Your task to perform on an android device: check out phone information Image 0: 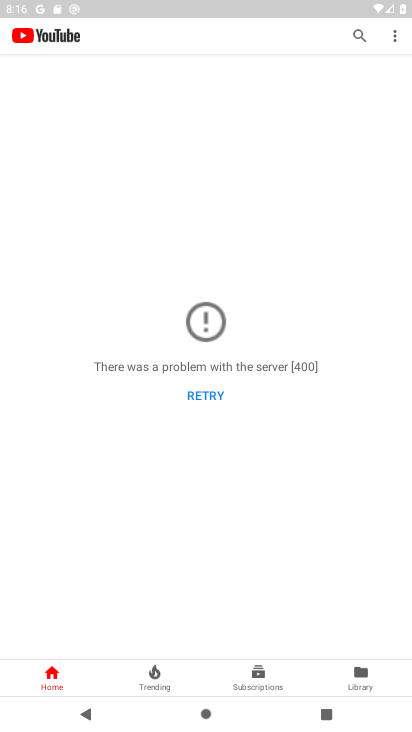
Step 0: press home button
Your task to perform on an android device: check out phone information Image 1: 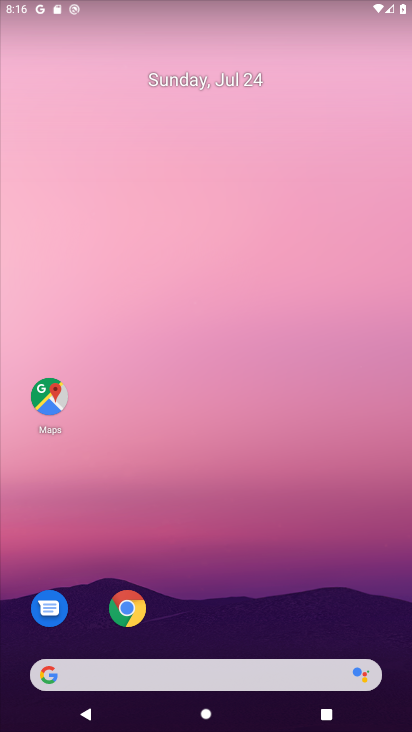
Step 1: drag from (226, 617) to (245, 79)
Your task to perform on an android device: check out phone information Image 2: 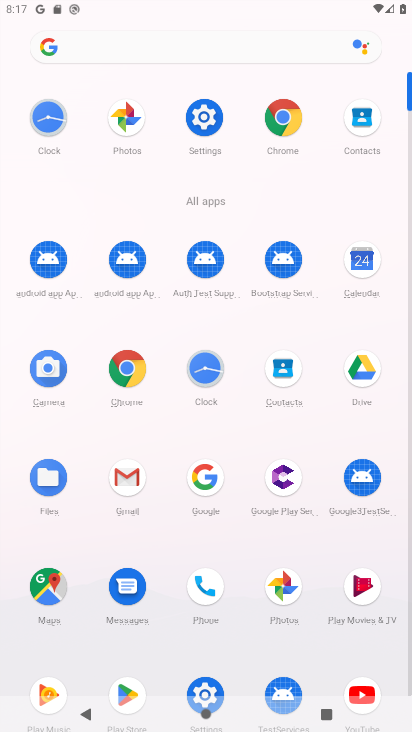
Step 2: click (195, 124)
Your task to perform on an android device: check out phone information Image 3: 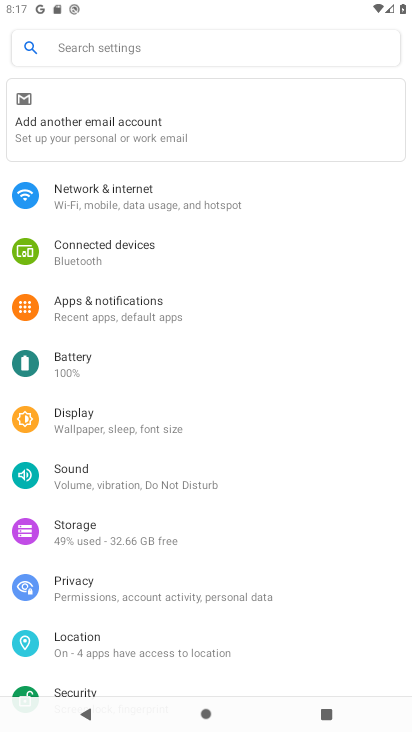
Step 3: drag from (105, 656) to (210, 93)
Your task to perform on an android device: check out phone information Image 4: 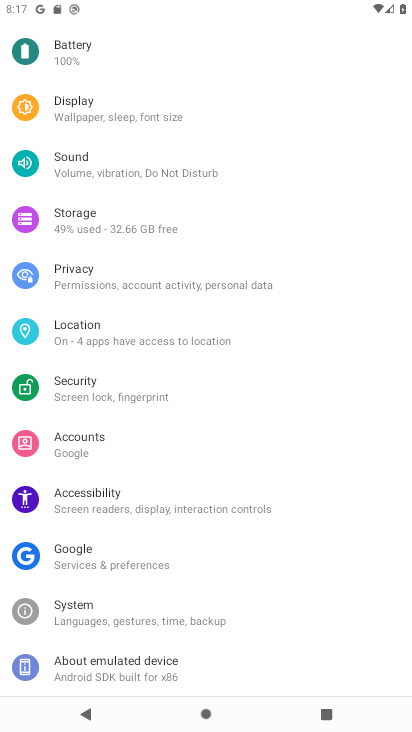
Step 4: drag from (135, 643) to (209, 131)
Your task to perform on an android device: check out phone information Image 5: 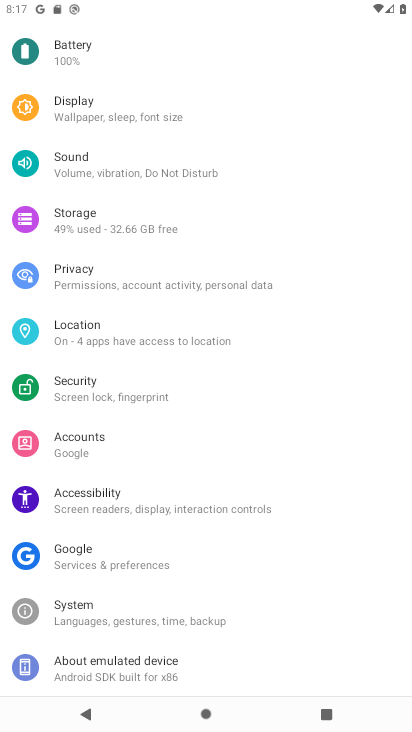
Step 5: click (97, 656)
Your task to perform on an android device: check out phone information Image 6: 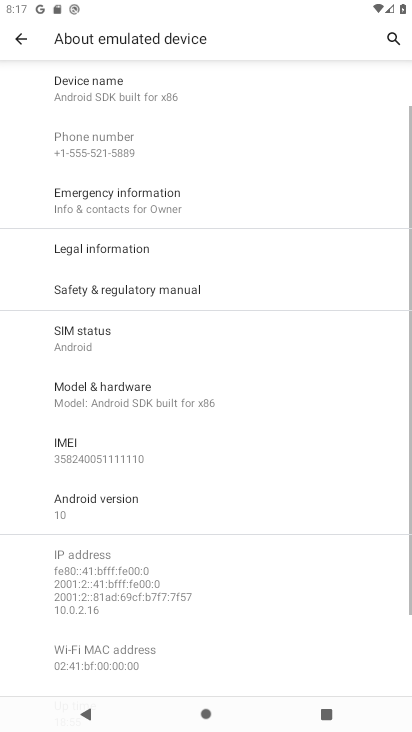
Step 6: task complete